Your task to perform on an android device: Open the calendar and show me this week's events? Image 0: 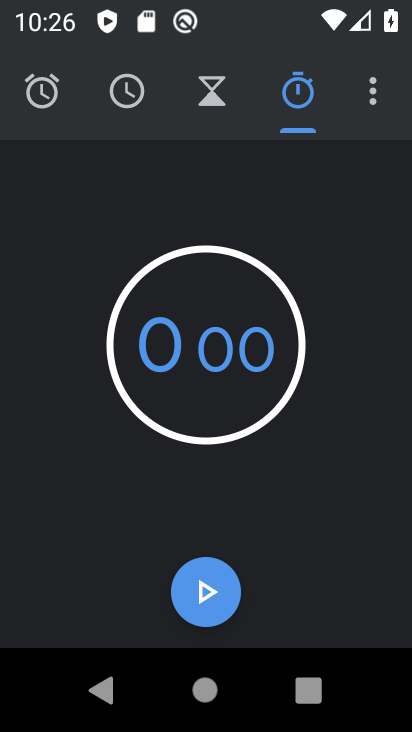
Step 0: press home button
Your task to perform on an android device: Open the calendar and show me this week's events? Image 1: 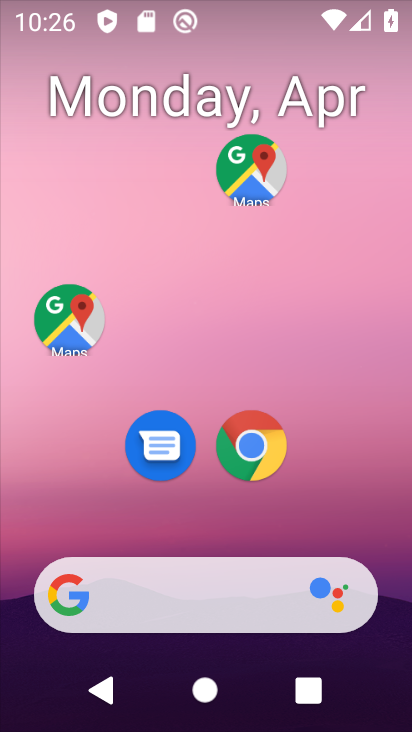
Step 1: drag from (200, 516) to (189, 3)
Your task to perform on an android device: Open the calendar and show me this week's events? Image 2: 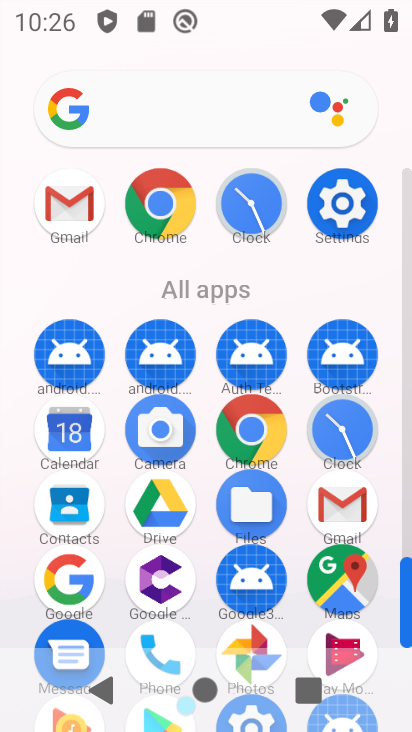
Step 2: click (64, 444)
Your task to perform on an android device: Open the calendar and show me this week's events? Image 3: 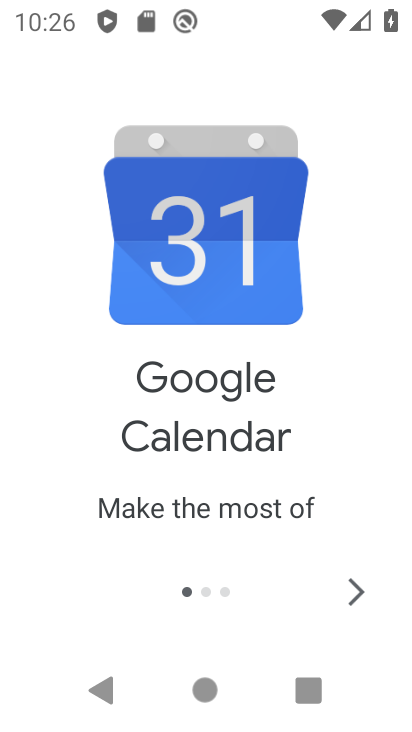
Step 3: click (355, 596)
Your task to perform on an android device: Open the calendar and show me this week's events? Image 4: 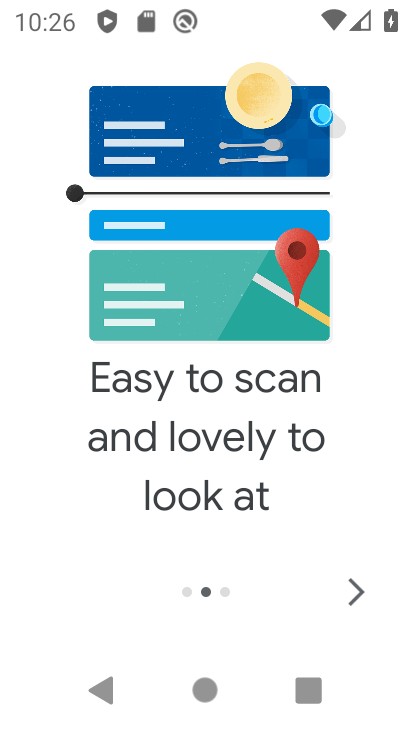
Step 4: click (351, 587)
Your task to perform on an android device: Open the calendar and show me this week's events? Image 5: 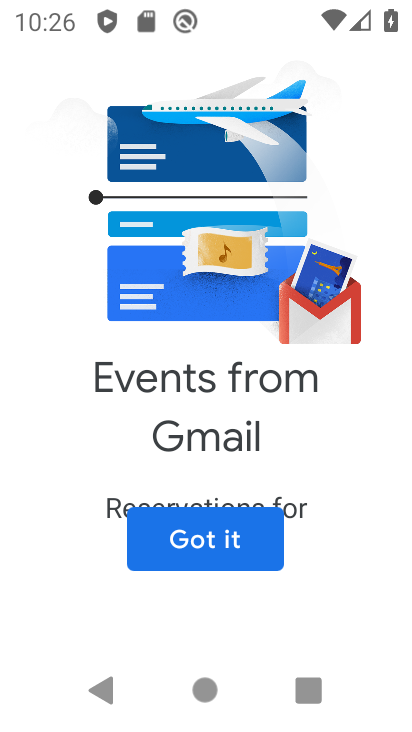
Step 5: click (241, 537)
Your task to perform on an android device: Open the calendar and show me this week's events? Image 6: 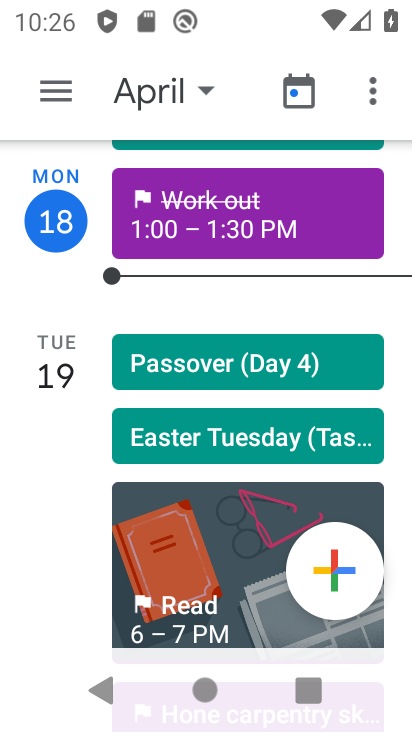
Step 6: click (44, 97)
Your task to perform on an android device: Open the calendar and show me this week's events? Image 7: 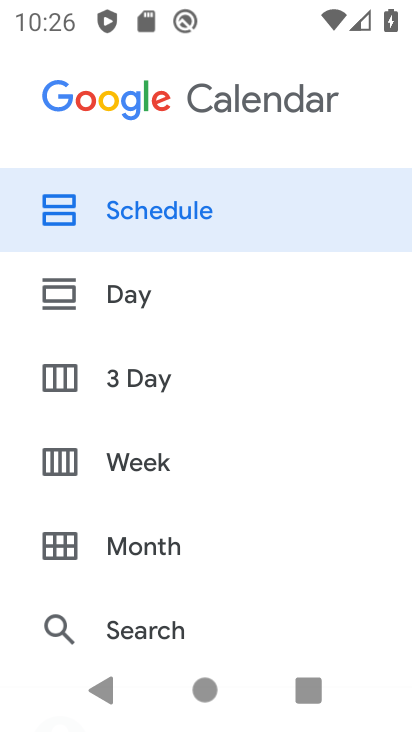
Step 7: click (139, 456)
Your task to perform on an android device: Open the calendar and show me this week's events? Image 8: 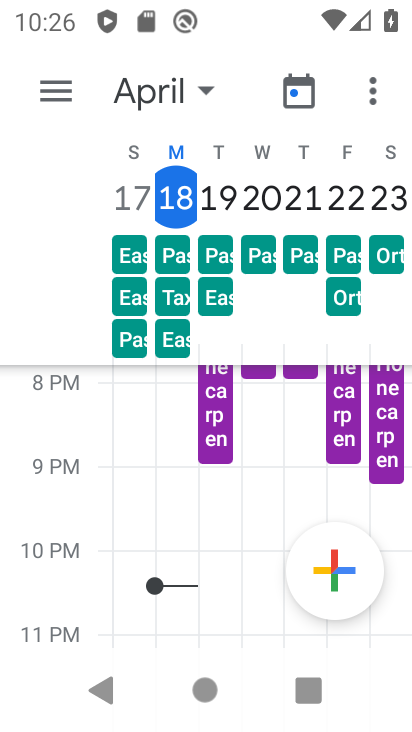
Step 8: click (53, 94)
Your task to perform on an android device: Open the calendar and show me this week's events? Image 9: 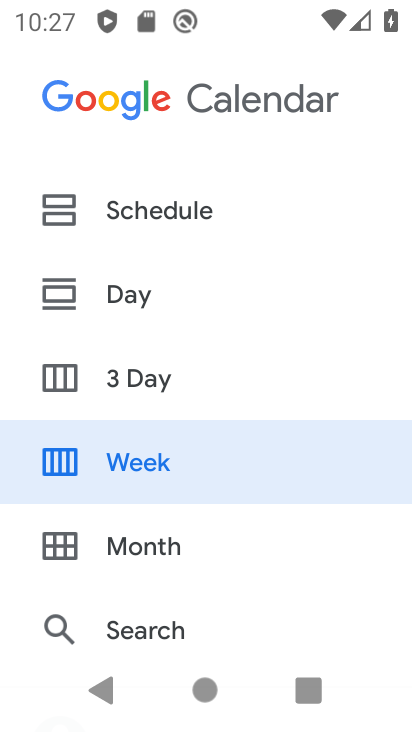
Step 9: drag from (151, 574) to (120, 139)
Your task to perform on an android device: Open the calendar and show me this week's events? Image 10: 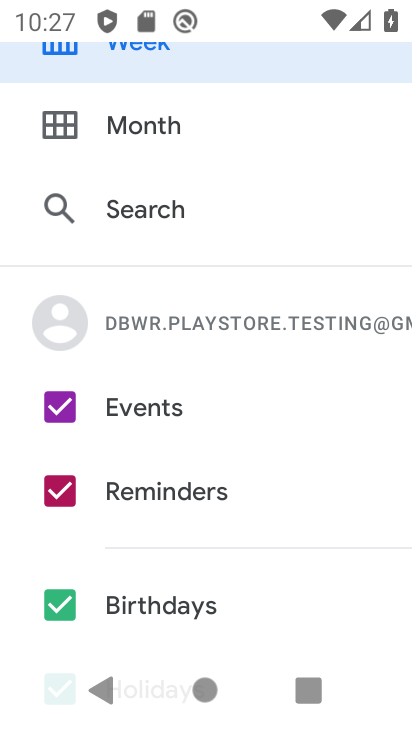
Step 10: click (62, 489)
Your task to perform on an android device: Open the calendar and show me this week's events? Image 11: 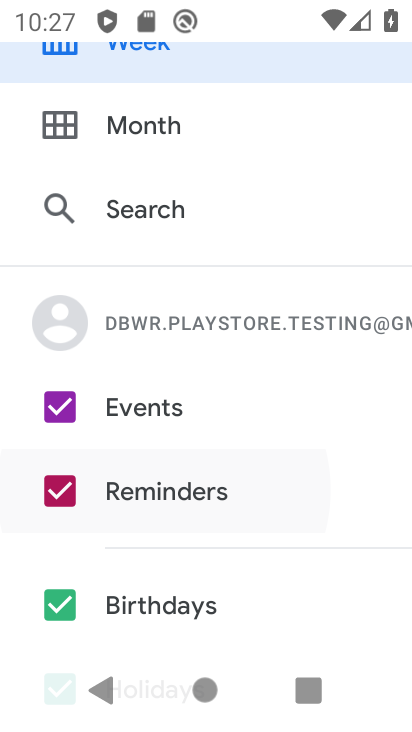
Step 11: click (52, 600)
Your task to perform on an android device: Open the calendar and show me this week's events? Image 12: 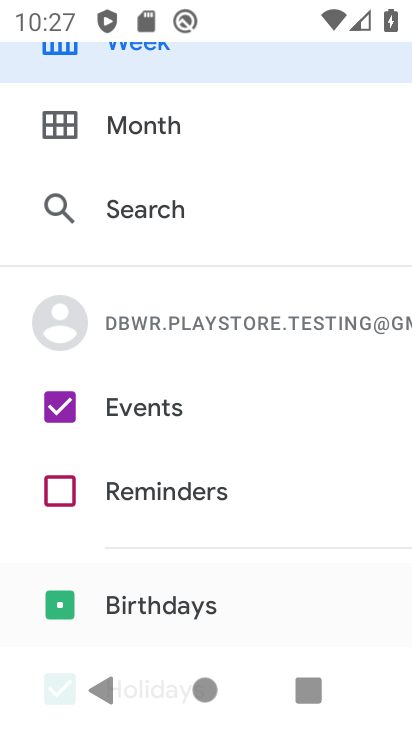
Step 12: drag from (231, 506) to (220, 303)
Your task to perform on an android device: Open the calendar and show me this week's events? Image 13: 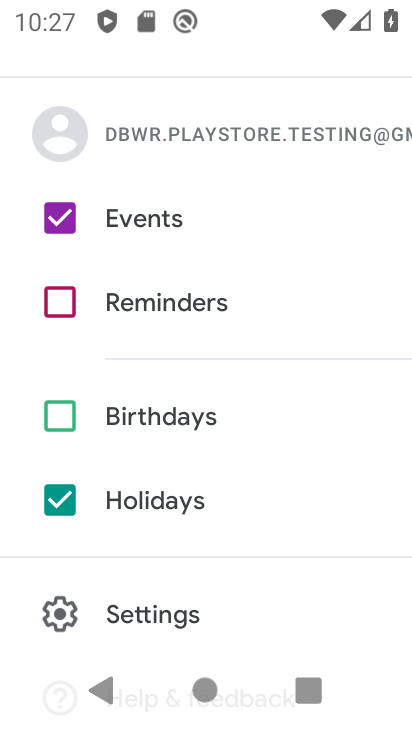
Step 13: click (53, 502)
Your task to perform on an android device: Open the calendar and show me this week's events? Image 14: 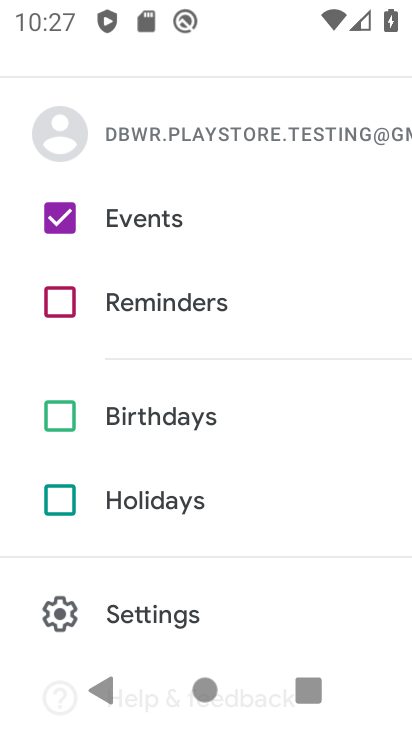
Step 14: drag from (265, 226) to (259, 536)
Your task to perform on an android device: Open the calendar and show me this week's events? Image 15: 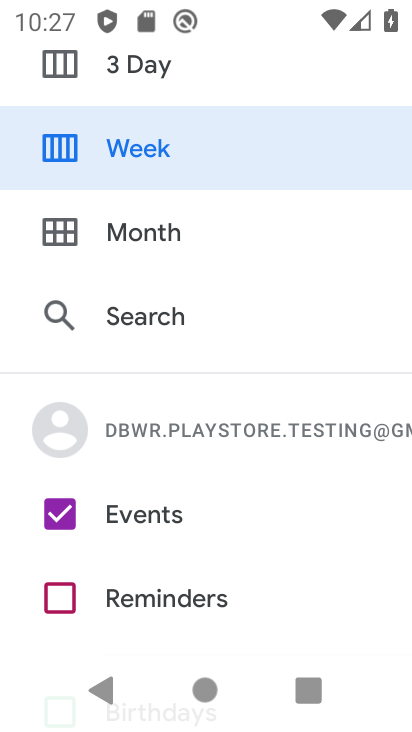
Step 15: click (146, 164)
Your task to perform on an android device: Open the calendar and show me this week's events? Image 16: 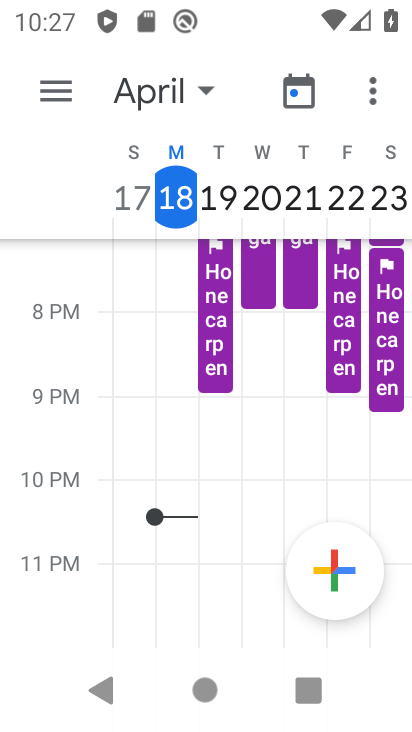
Step 16: task complete